Your task to perform on an android device: Go to Maps Image 0: 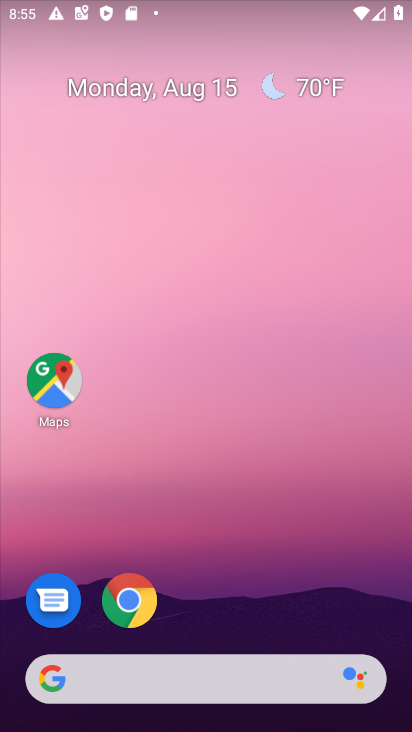
Step 0: drag from (227, 635) to (234, 43)
Your task to perform on an android device: Go to Maps Image 1: 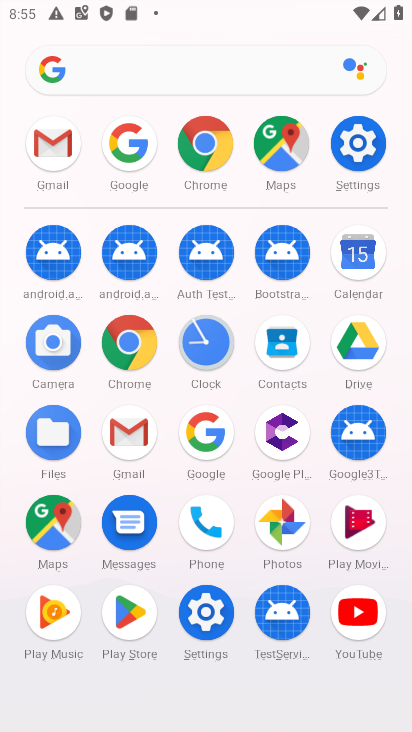
Step 1: click (60, 524)
Your task to perform on an android device: Go to Maps Image 2: 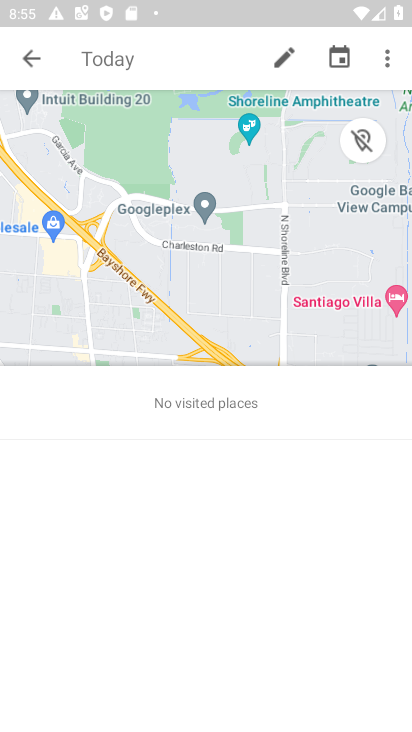
Step 2: task complete